Your task to perform on an android device: Go to ESPN.com Image 0: 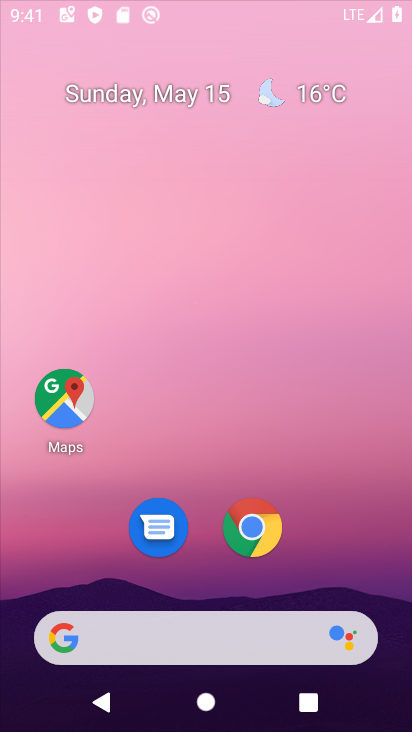
Step 0: drag from (378, 531) to (365, 56)
Your task to perform on an android device: Go to ESPN.com Image 1: 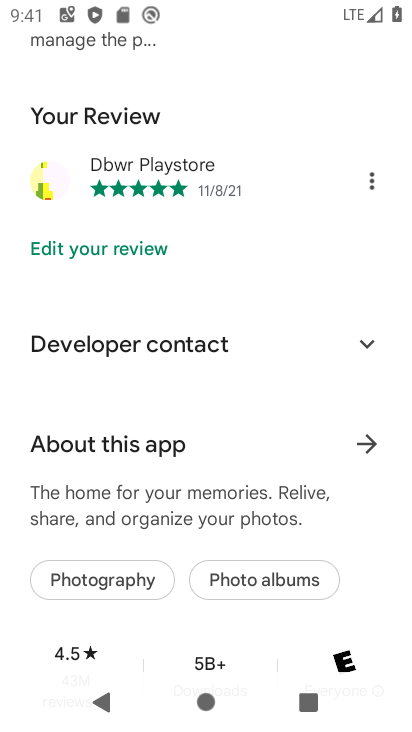
Step 1: press home button
Your task to perform on an android device: Go to ESPN.com Image 2: 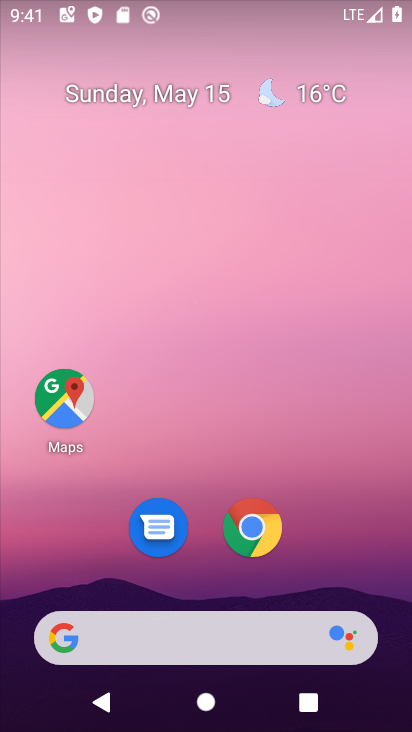
Step 2: click (248, 534)
Your task to perform on an android device: Go to ESPN.com Image 3: 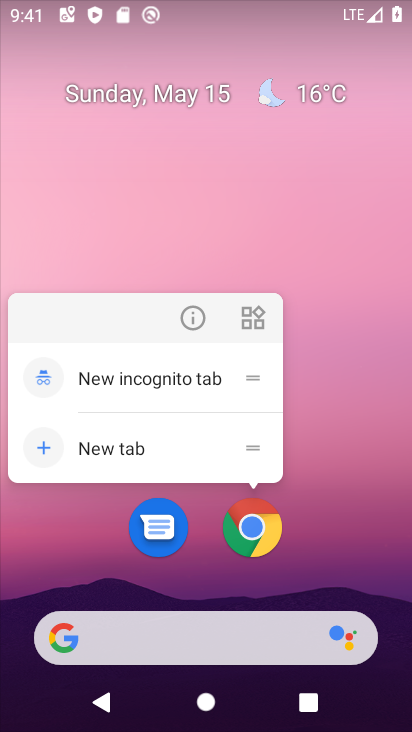
Step 3: click (248, 534)
Your task to perform on an android device: Go to ESPN.com Image 4: 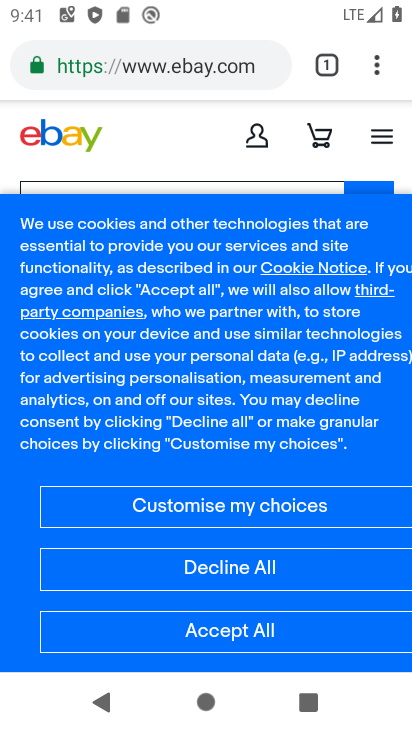
Step 4: click (99, 67)
Your task to perform on an android device: Go to ESPN.com Image 5: 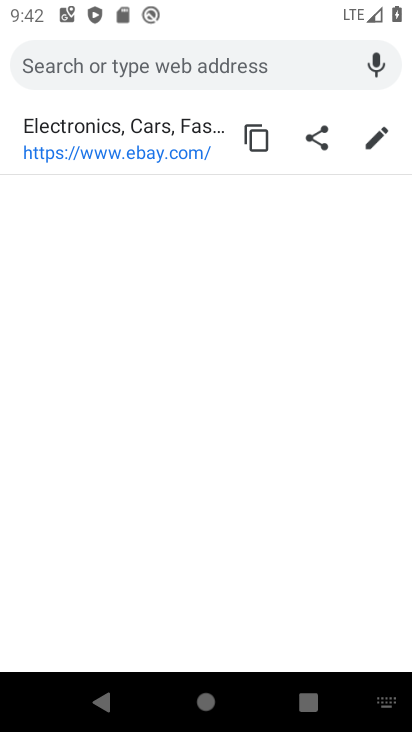
Step 5: type "espn.com"
Your task to perform on an android device: Go to ESPN.com Image 6: 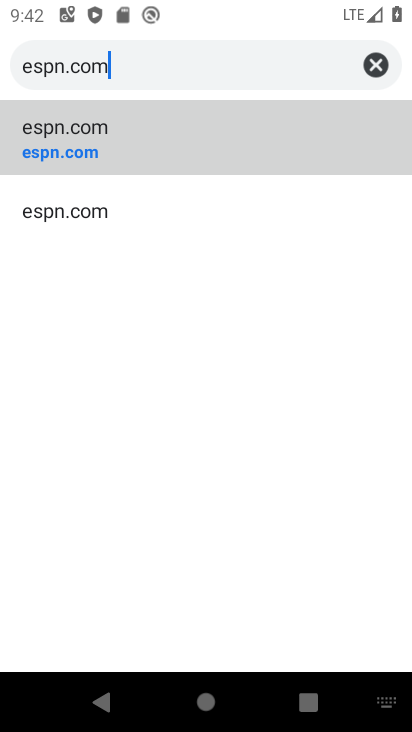
Step 6: click (93, 146)
Your task to perform on an android device: Go to ESPN.com Image 7: 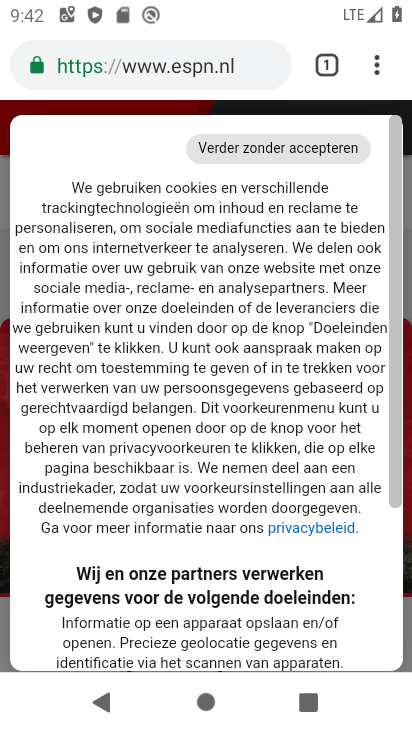
Step 7: task complete